Your task to perform on an android device: toggle improve location accuracy Image 0: 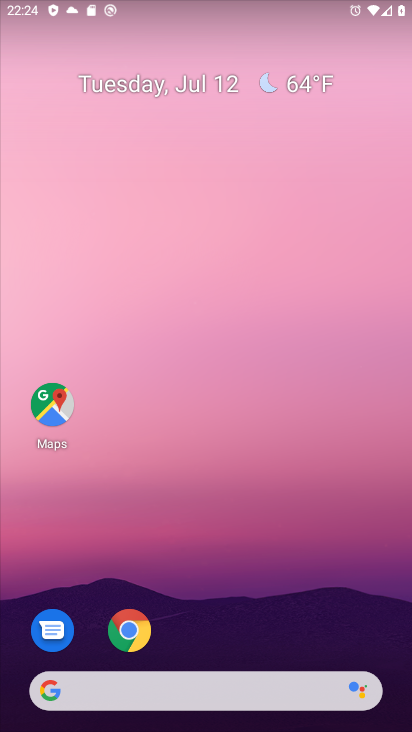
Step 0: drag from (223, 667) to (219, 4)
Your task to perform on an android device: toggle improve location accuracy Image 1: 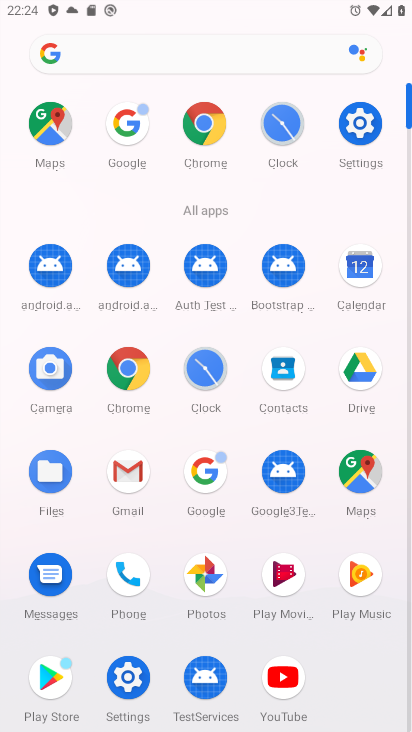
Step 1: click (134, 693)
Your task to perform on an android device: toggle improve location accuracy Image 2: 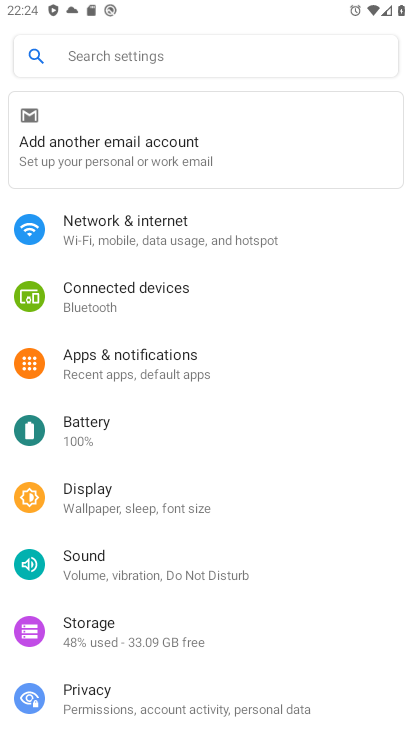
Step 2: drag from (128, 682) to (124, 374)
Your task to perform on an android device: toggle improve location accuracy Image 3: 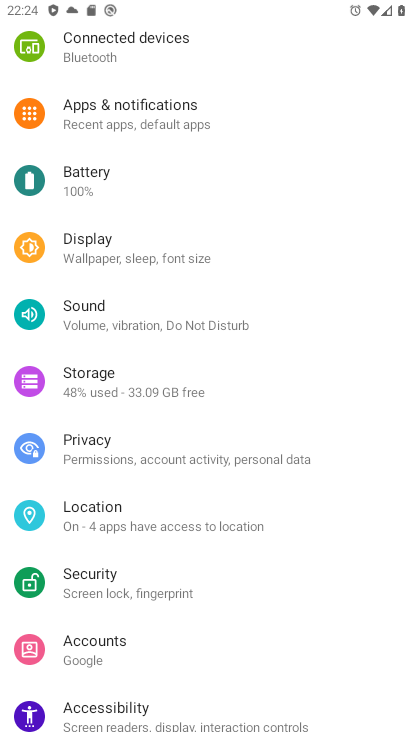
Step 3: click (98, 512)
Your task to perform on an android device: toggle improve location accuracy Image 4: 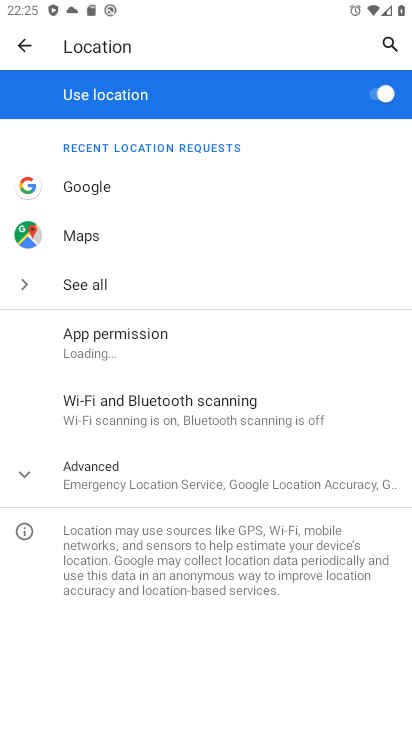
Step 4: click (217, 461)
Your task to perform on an android device: toggle improve location accuracy Image 5: 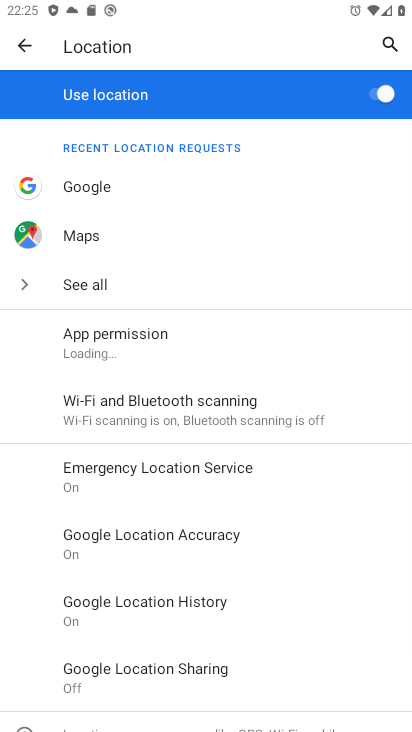
Step 5: click (180, 566)
Your task to perform on an android device: toggle improve location accuracy Image 6: 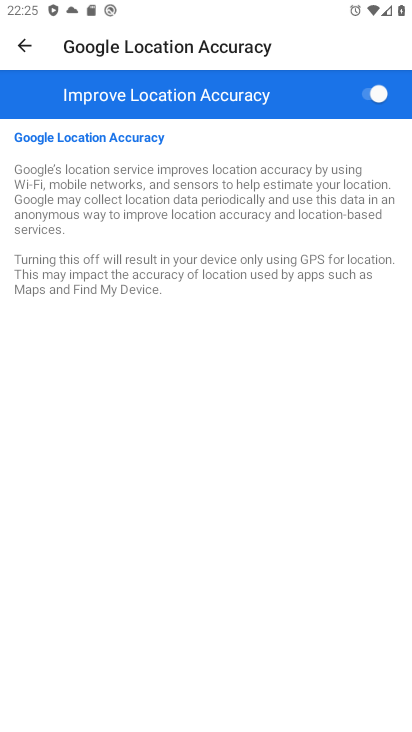
Step 6: click (361, 89)
Your task to perform on an android device: toggle improve location accuracy Image 7: 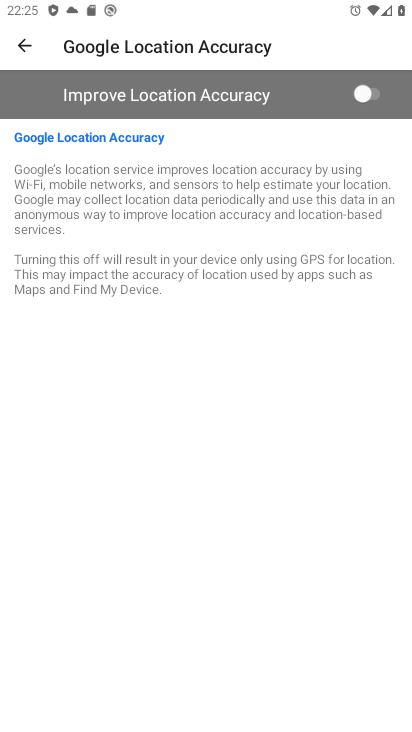
Step 7: task complete